Your task to perform on an android device: Open Google Maps Image 0: 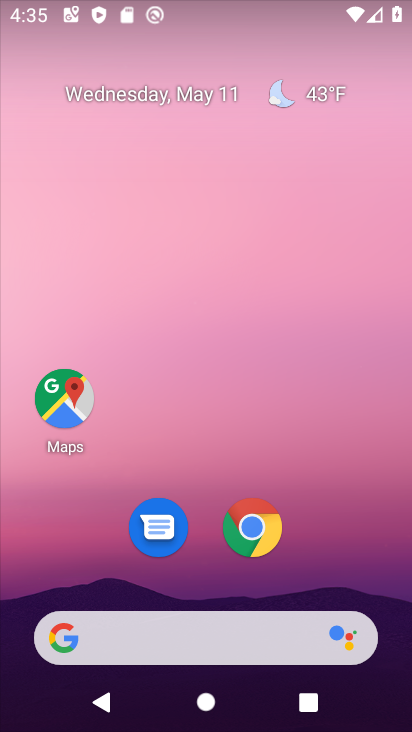
Step 0: click (65, 436)
Your task to perform on an android device: Open Google Maps Image 1: 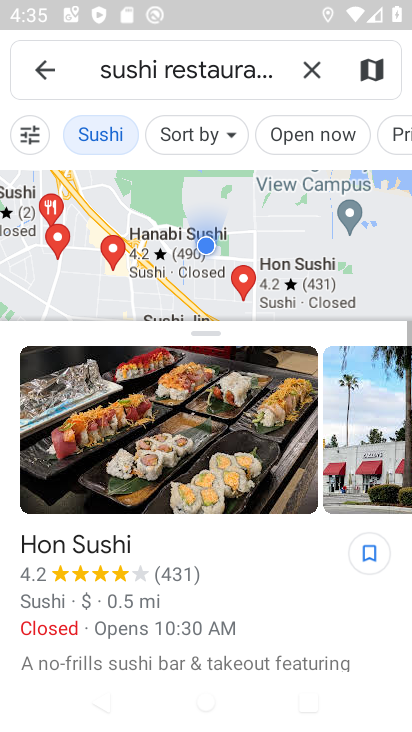
Step 1: task complete